Your task to perform on an android device: delete the emails in spam in the gmail app Image 0: 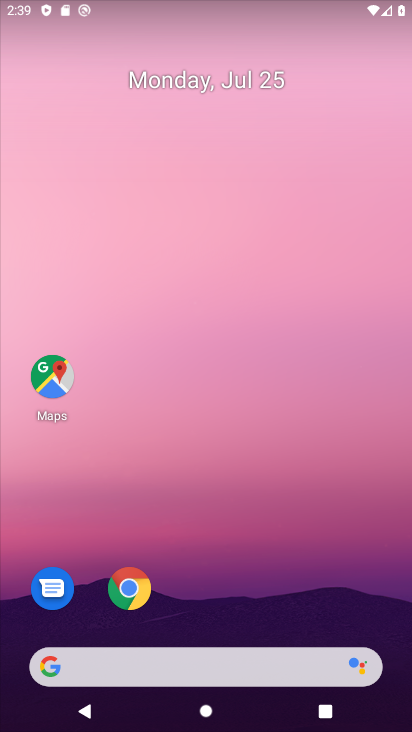
Step 0: press home button
Your task to perform on an android device: delete the emails in spam in the gmail app Image 1: 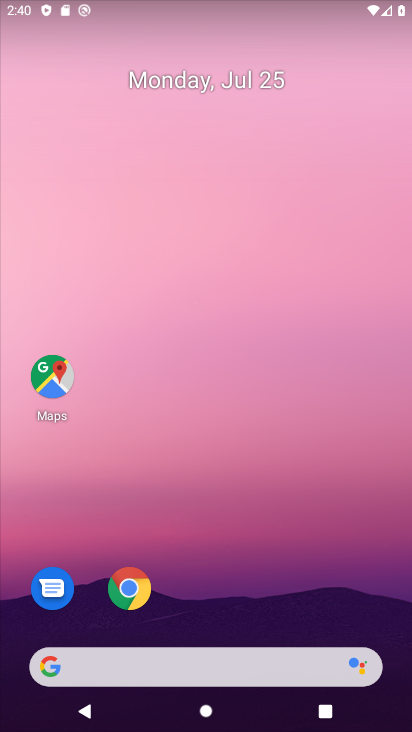
Step 1: click (21, 45)
Your task to perform on an android device: delete the emails in spam in the gmail app Image 2: 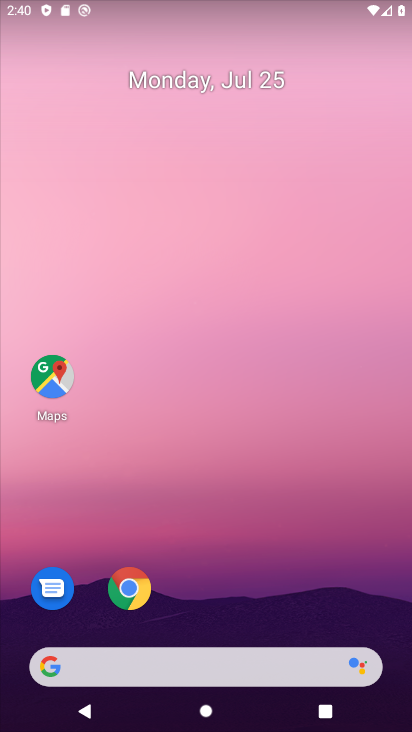
Step 2: drag from (249, 584) to (242, 108)
Your task to perform on an android device: delete the emails in spam in the gmail app Image 3: 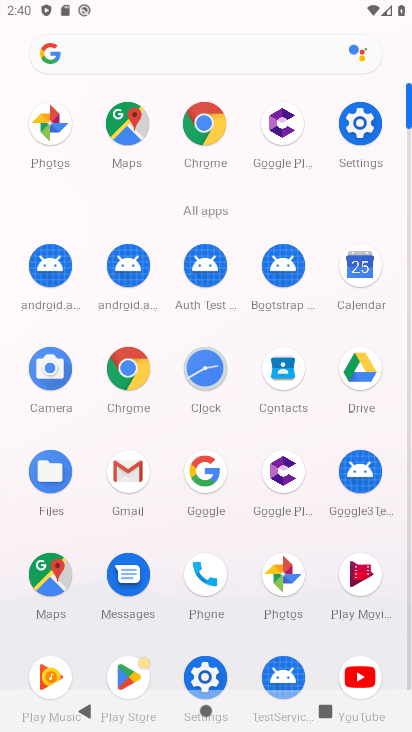
Step 3: click (132, 463)
Your task to perform on an android device: delete the emails in spam in the gmail app Image 4: 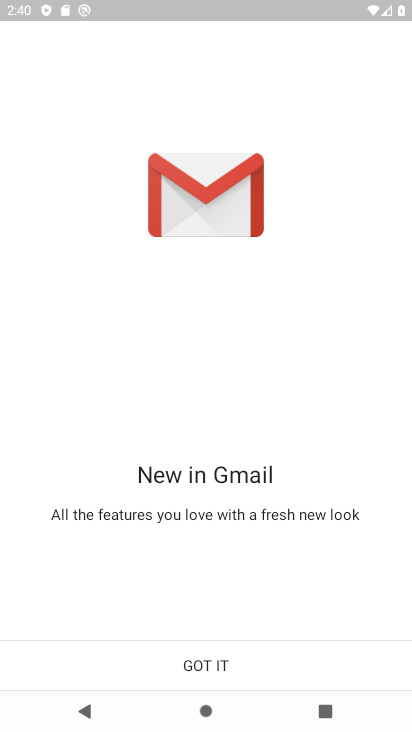
Step 4: click (237, 661)
Your task to perform on an android device: delete the emails in spam in the gmail app Image 5: 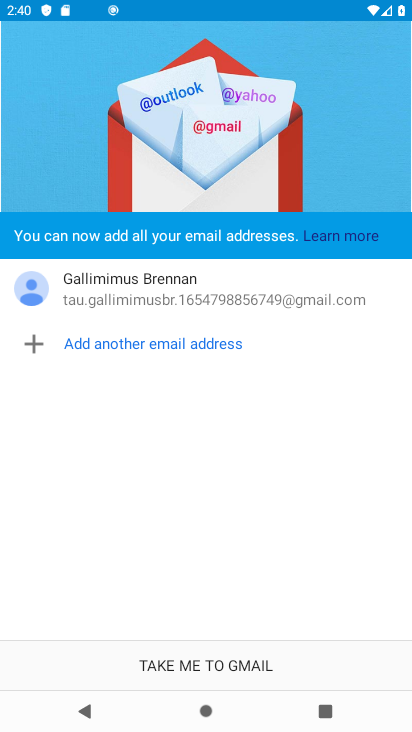
Step 5: click (235, 671)
Your task to perform on an android device: delete the emails in spam in the gmail app Image 6: 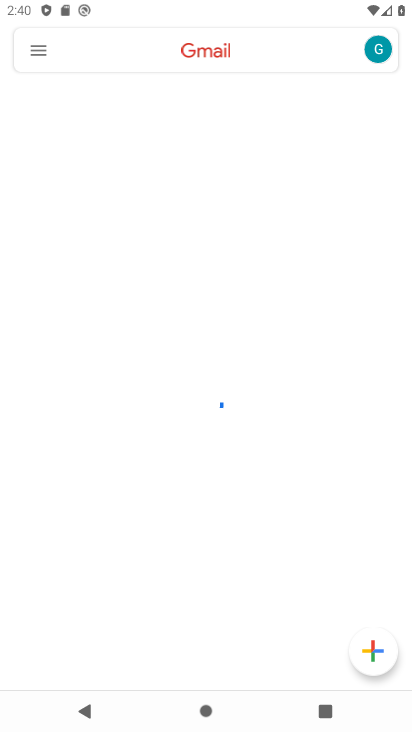
Step 6: click (36, 40)
Your task to perform on an android device: delete the emails in spam in the gmail app Image 7: 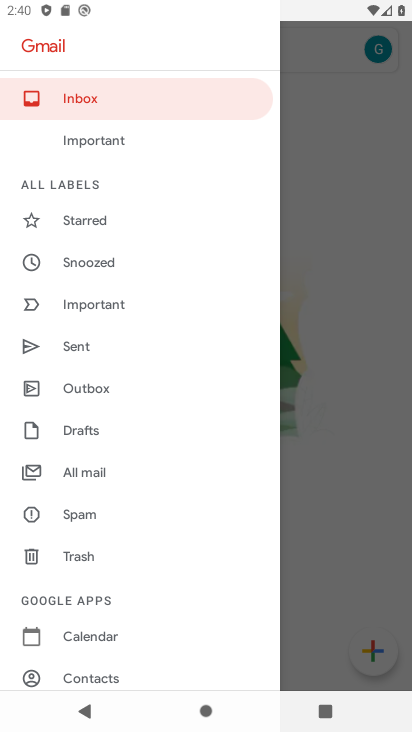
Step 7: click (102, 521)
Your task to perform on an android device: delete the emails in spam in the gmail app Image 8: 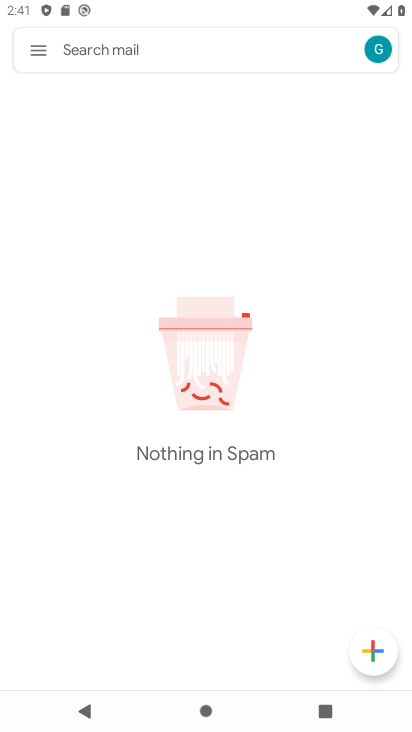
Step 8: task complete